Your task to perform on an android device: open app "Google Keep" (install if not already installed) Image 0: 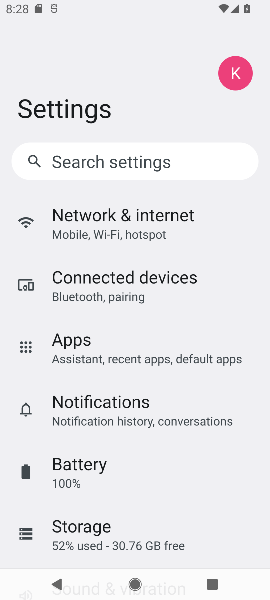
Step 0: press home button
Your task to perform on an android device: open app "Google Keep" (install if not already installed) Image 1: 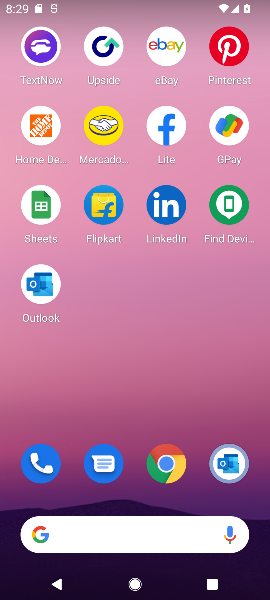
Step 1: drag from (128, 476) to (122, 1)
Your task to perform on an android device: open app "Google Keep" (install if not already installed) Image 2: 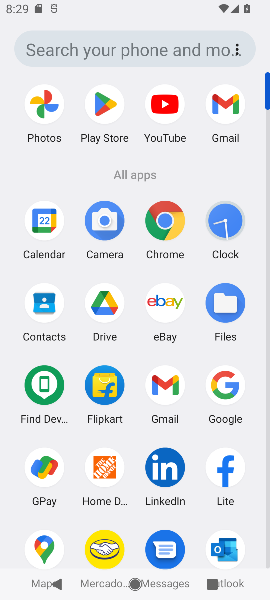
Step 2: click (100, 108)
Your task to perform on an android device: open app "Google Keep" (install if not already installed) Image 3: 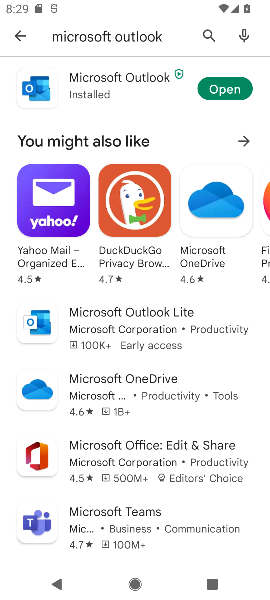
Step 3: click (220, 91)
Your task to perform on an android device: open app "Google Keep" (install if not already installed) Image 4: 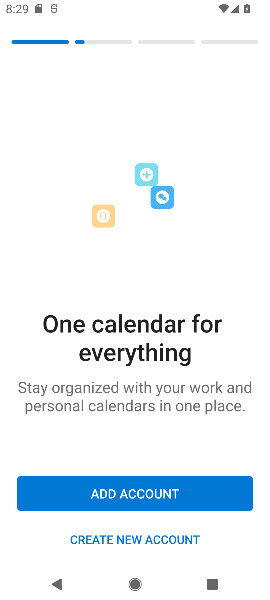
Step 4: task complete